Your task to perform on an android device: turn off sleep mode Image 0: 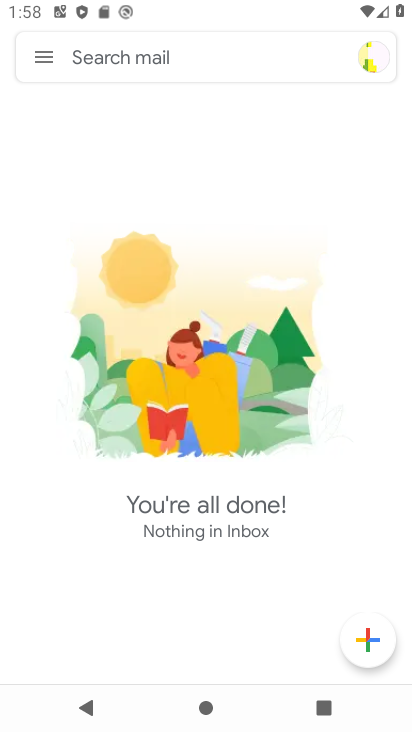
Step 0: press home button
Your task to perform on an android device: turn off sleep mode Image 1: 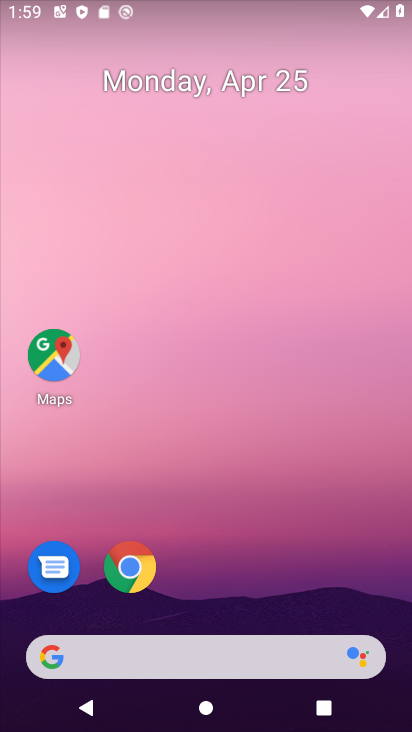
Step 1: drag from (251, 593) to (214, 196)
Your task to perform on an android device: turn off sleep mode Image 2: 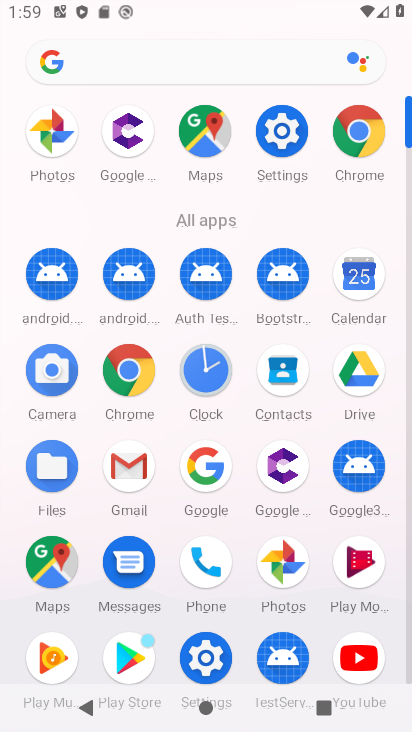
Step 2: click (291, 131)
Your task to perform on an android device: turn off sleep mode Image 3: 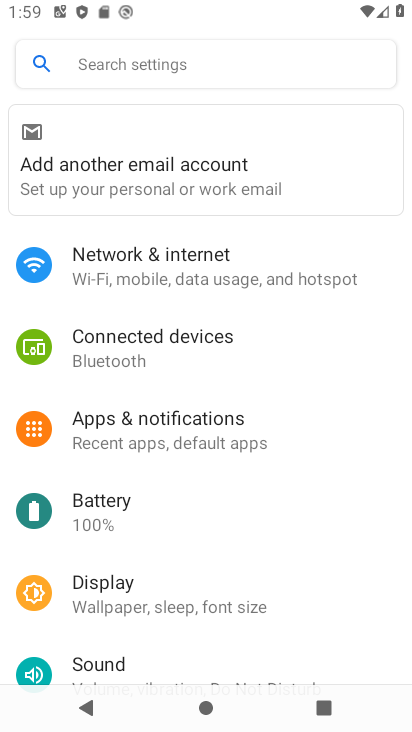
Step 3: drag from (246, 603) to (213, 280)
Your task to perform on an android device: turn off sleep mode Image 4: 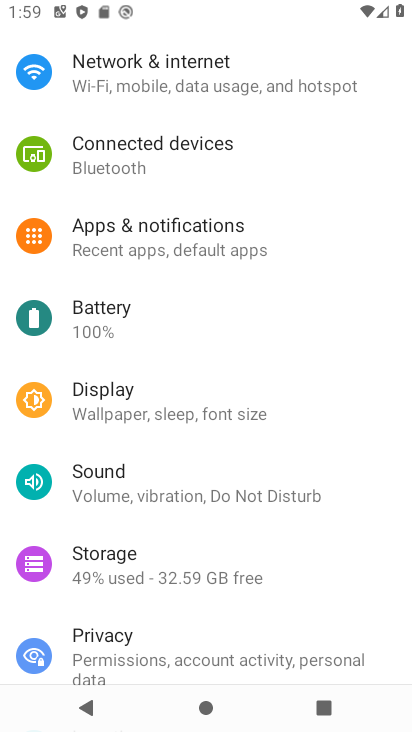
Step 4: click (212, 423)
Your task to perform on an android device: turn off sleep mode Image 5: 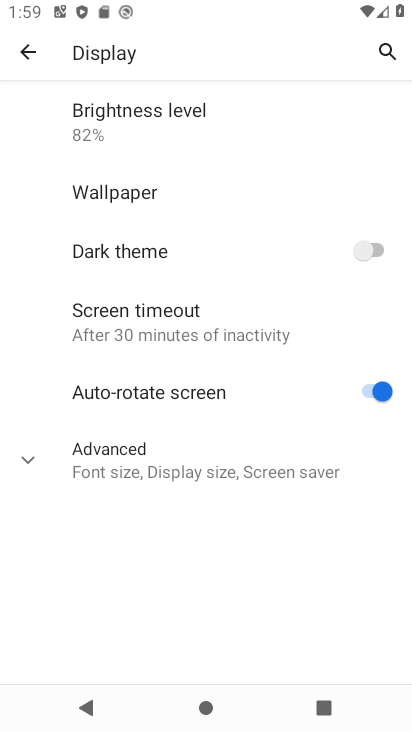
Step 5: task complete